Your task to perform on an android device: Go to settings Image 0: 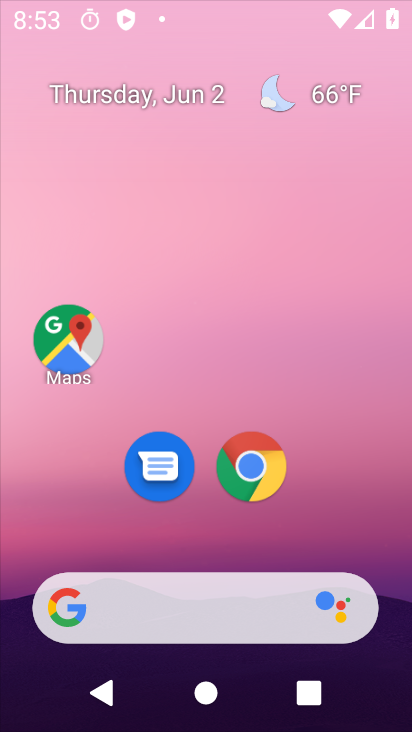
Step 0: click (124, 454)
Your task to perform on an android device: Go to settings Image 1: 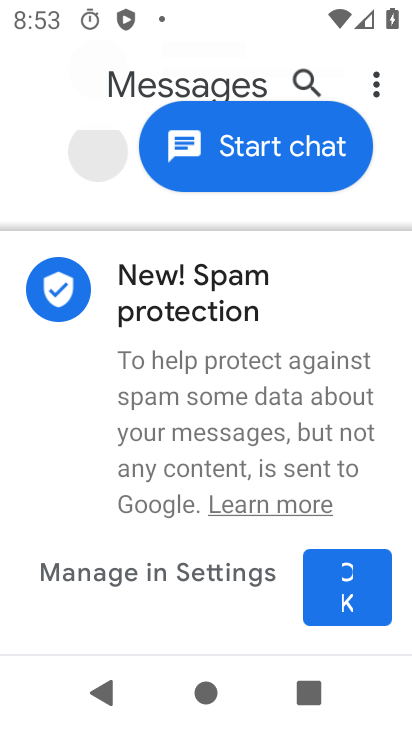
Step 1: press home button
Your task to perform on an android device: Go to settings Image 2: 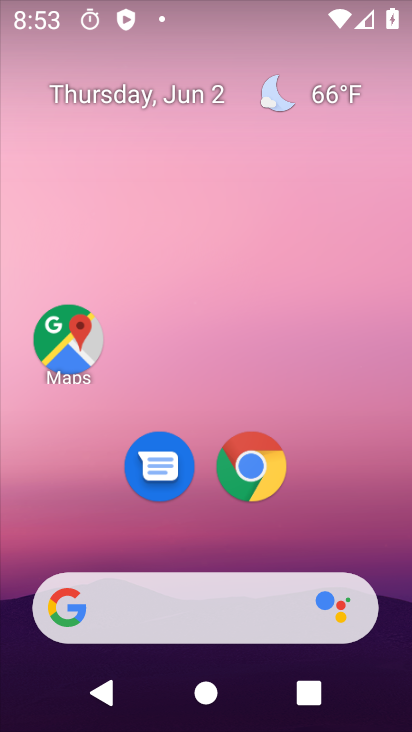
Step 2: drag from (79, 649) to (408, 51)
Your task to perform on an android device: Go to settings Image 3: 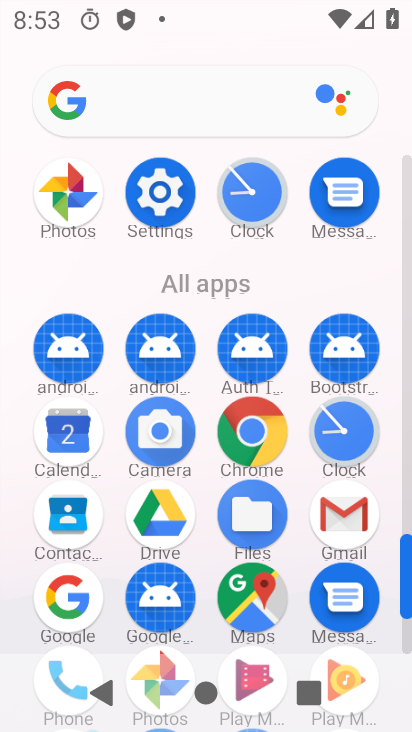
Step 3: click (166, 209)
Your task to perform on an android device: Go to settings Image 4: 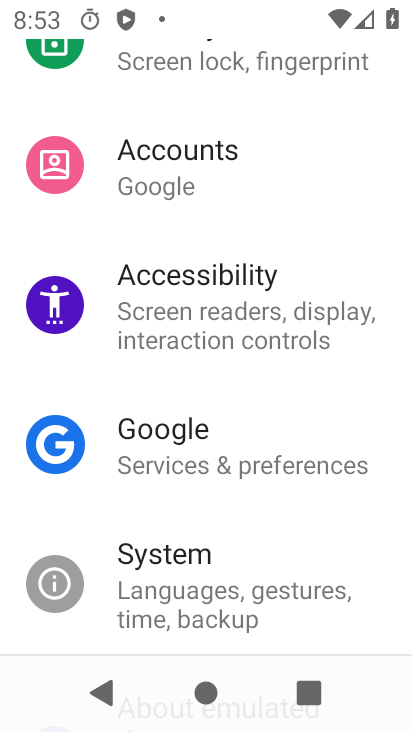
Step 4: task complete